Your task to perform on an android device: Search for sushi restaurants on Maps Image 0: 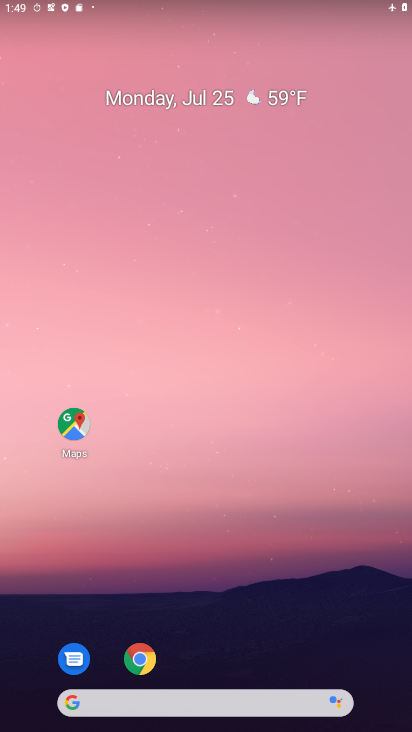
Step 0: click (74, 422)
Your task to perform on an android device: Search for sushi restaurants on Maps Image 1: 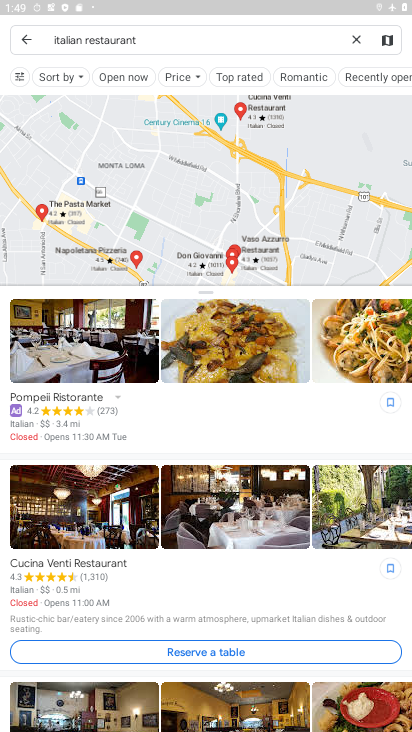
Step 1: click (153, 37)
Your task to perform on an android device: Search for sushi restaurants on Maps Image 2: 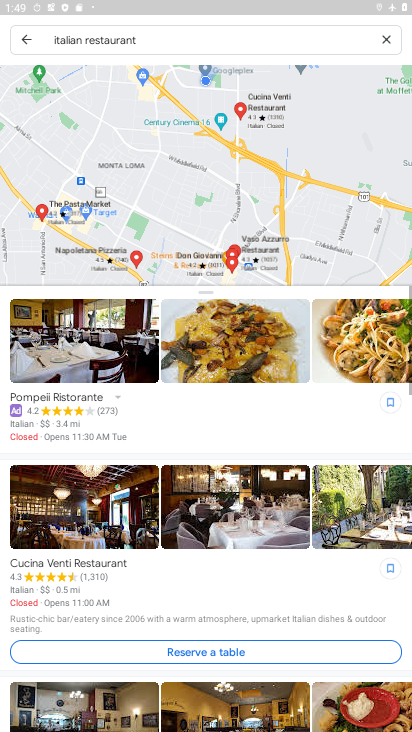
Step 2: click (348, 42)
Your task to perform on an android device: Search for sushi restaurants on Maps Image 3: 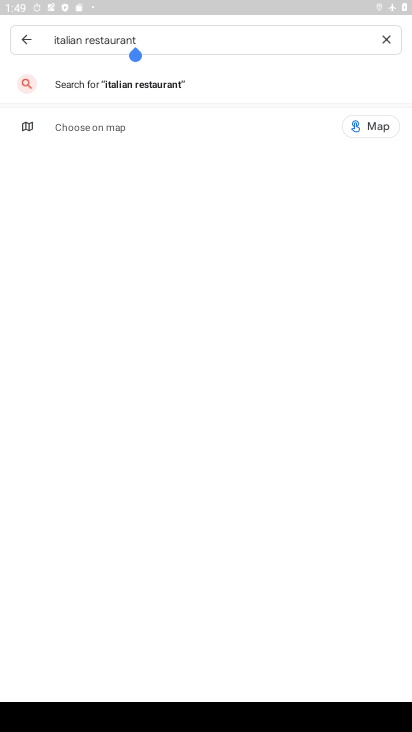
Step 3: click (395, 41)
Your task to perform on an android device: Search for sushi restaurants on Maps Image 4: 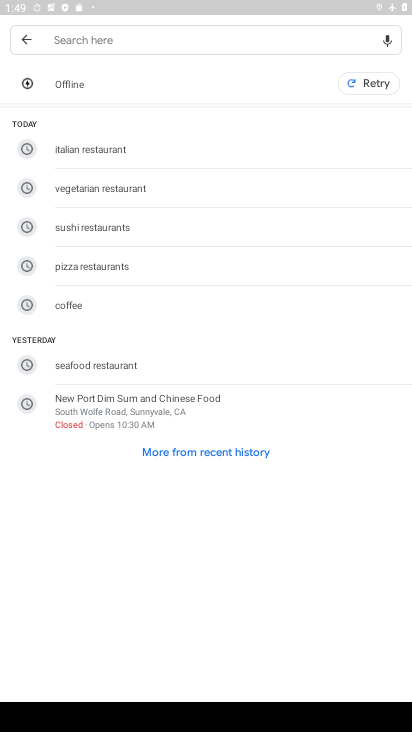
Step 4: click (89, 39)
Your task to perform on an android device: Search for sushi restaurants on Maps Image 5: 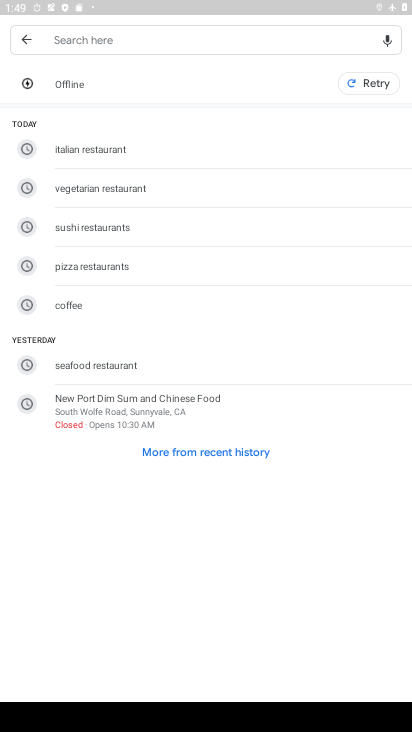
Step 5: type "sushi restaurants"
Your task to perform on an android device: Search for sushi restaurants on Maps Image 6: 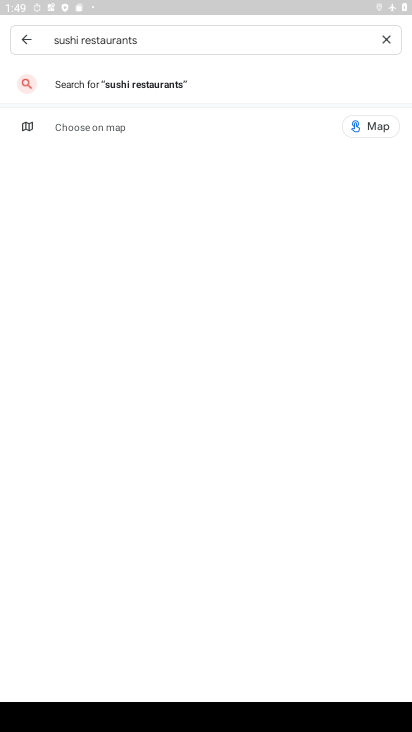
Step 6: click (143, 95)
Your task to perform on an android device: Search for sushi restaurants on Maps Image 7: 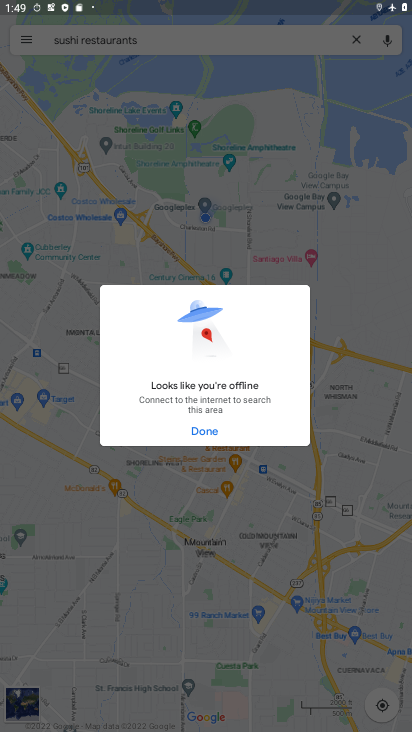
Step 7: task complete